Your task to perform on an android device: delete a single message in the gmail app Image 0: 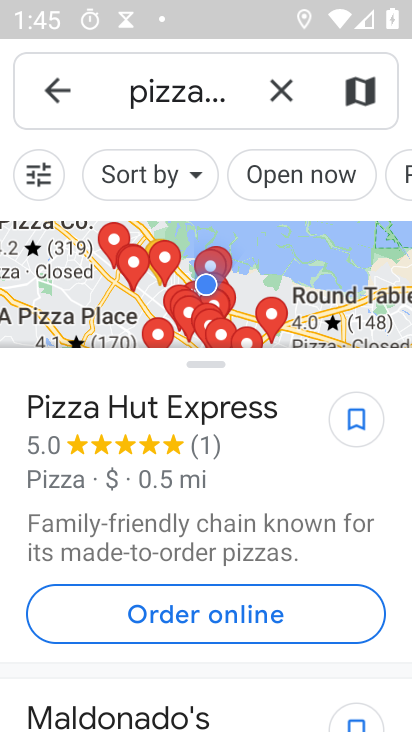
Step 0: press home button
Your task to perform on an android device: delete a single message in the gmail app Image 1: 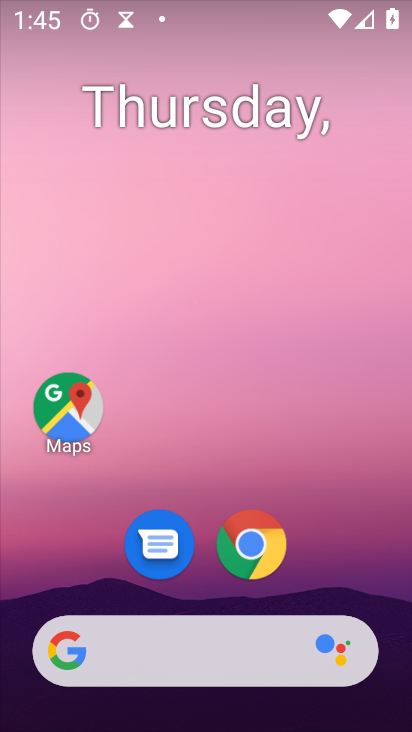
Step 1: drag from (237, 721) to (240, 201)
Your task to perform on an android device: delete a single message in the gmail app Image 2: 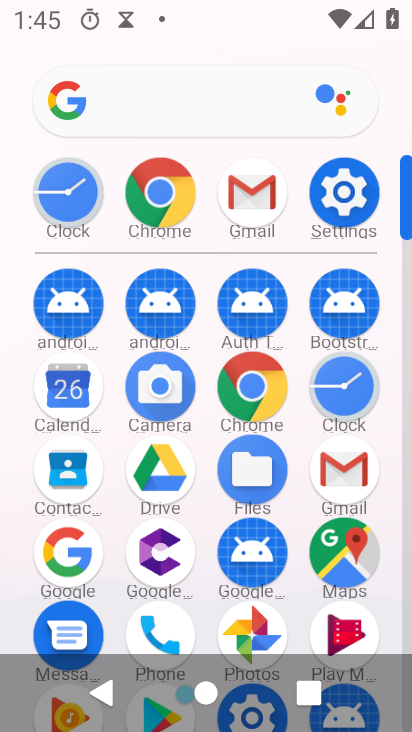
Step 2: click (356, 465)
Your task to perform on an android device: delete a single message in the gmail app Image 3: 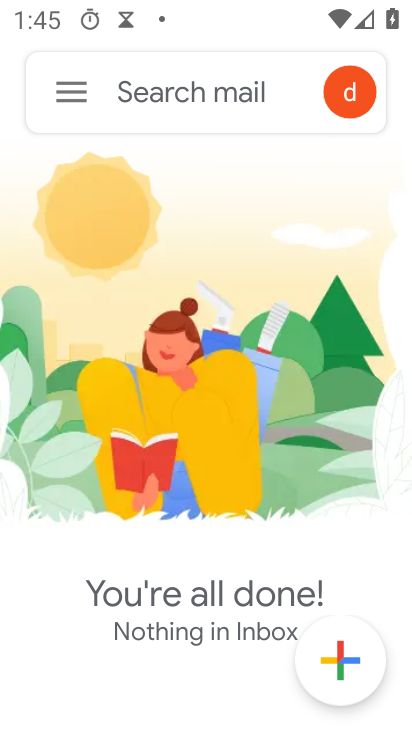
Step 3: task complete